Your task to perform on an android device: toggle translation in the chrome app Image 0: 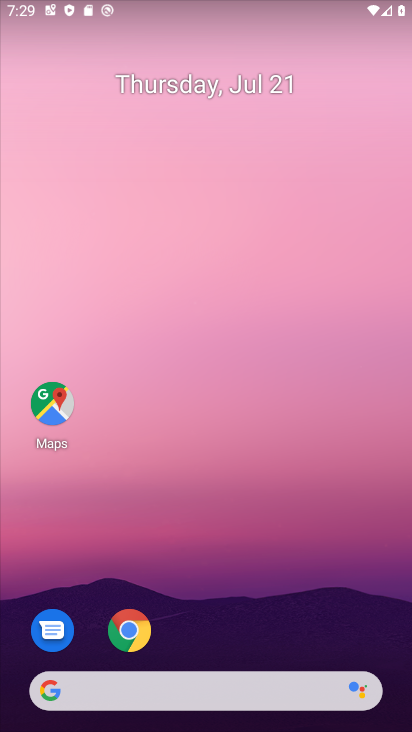
Step 0: click (130, 637)
Your task to perform on an android device: toggle translation in the chrome app Image 1: 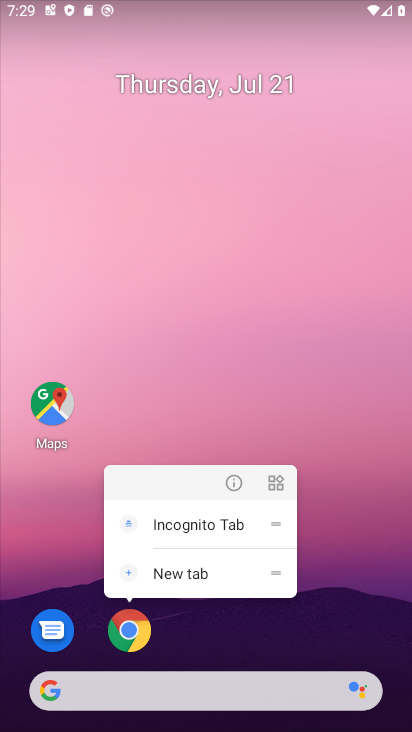
Step 1: click (130, 637)
Your task to perform on an android device: toggle translation in the chrome app Image 2: 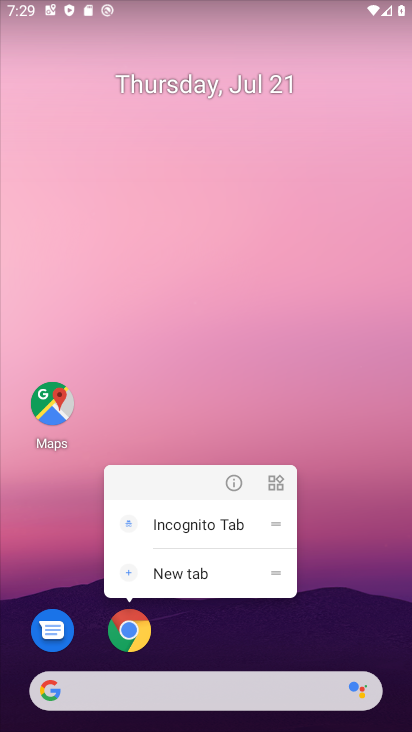
Step 2: click (130, 637)
Your task to perform on an android device: toggle translation in the chrome app Image 3: 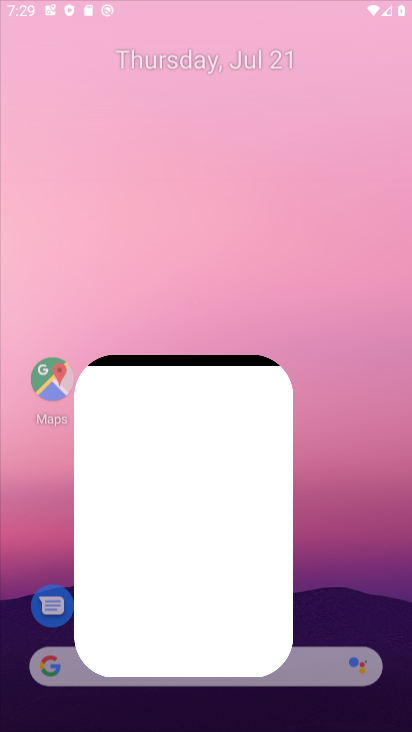
Step 3: click (130, 637)
Your task to perform on an android device: toggle translation in the chrome app Image 4: 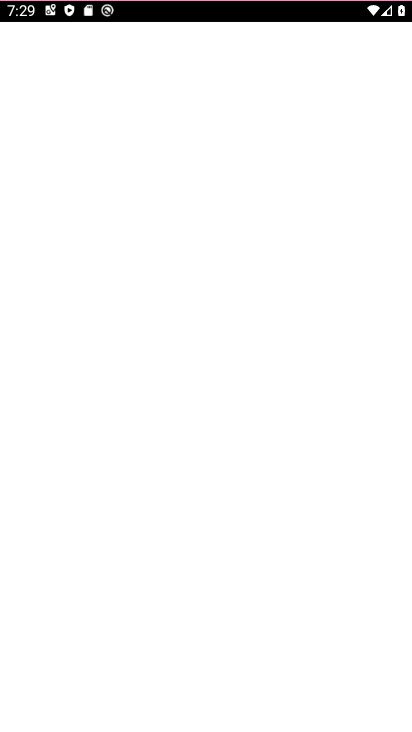
Step 4: click (130, 637)
Your task to perform on an android device: toggle translation in the chrome app Image 5: 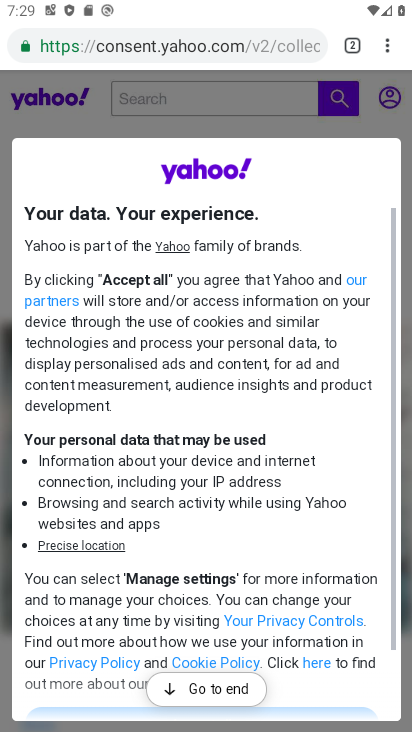
Step 5: click (378, 38)
Your task to perform on an android device: toggle translation in the chrome app Image 6: 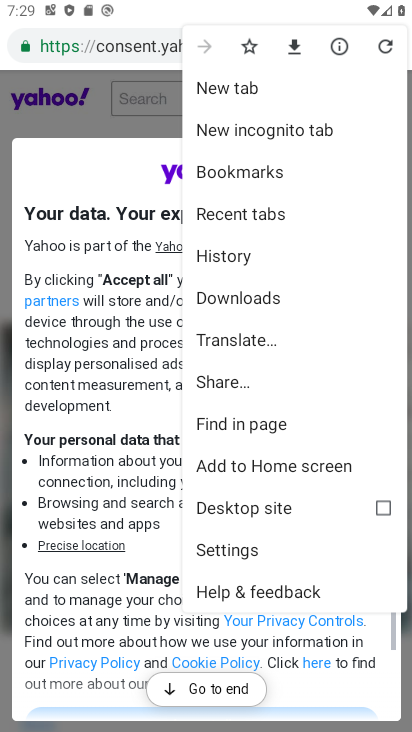
Step 6: click (214, 557)
Your task to perform on an android device: toggle translation in the chrome app Image 7: 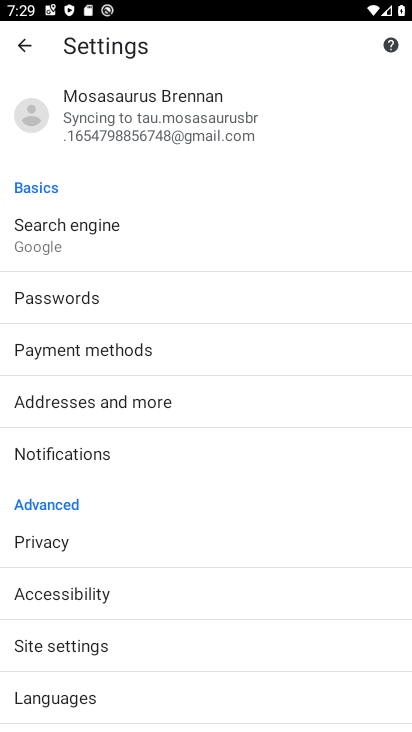
Step 7: click (49, 698)
Your task to perform on an android device: toggle translation in the chrome app Image 8: 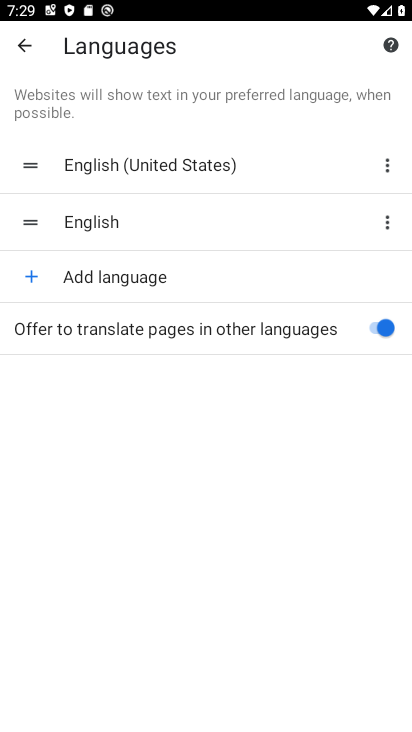
Step 8: click (385, 326)
Your task to perform on an android device: toggle translation in the chrome app Image 9: 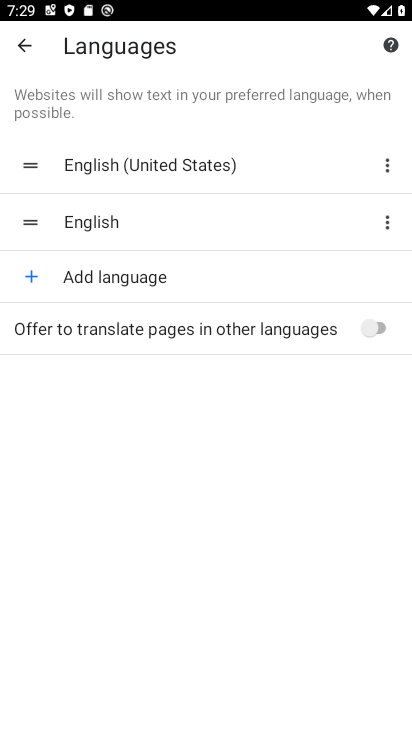
Step 9: task complete